Your task to perform on an android device: turn vacation reply on in the gmail app Image 0: 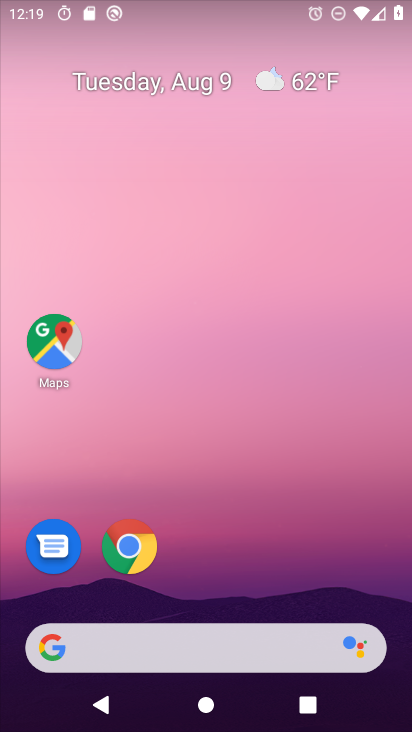
Step 0: press home button
Your task to perform on an android device: turn vacation reply on in the gmail app Image 1: 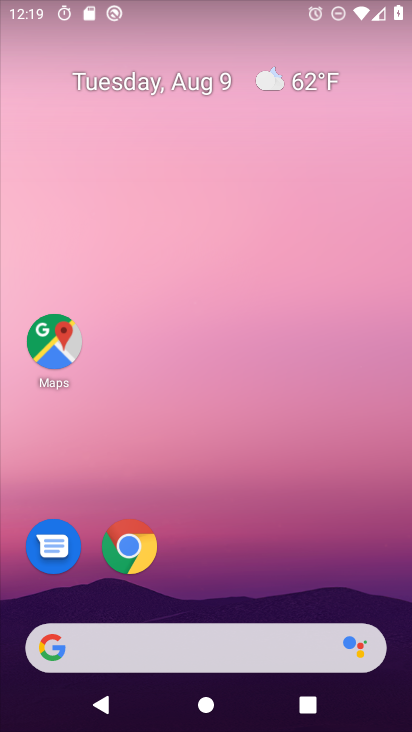
Step 1: drag from (215, 603) to (220, 12)
Your task to perform on an android device: turn vacation reply on in the gmail app Image 2: 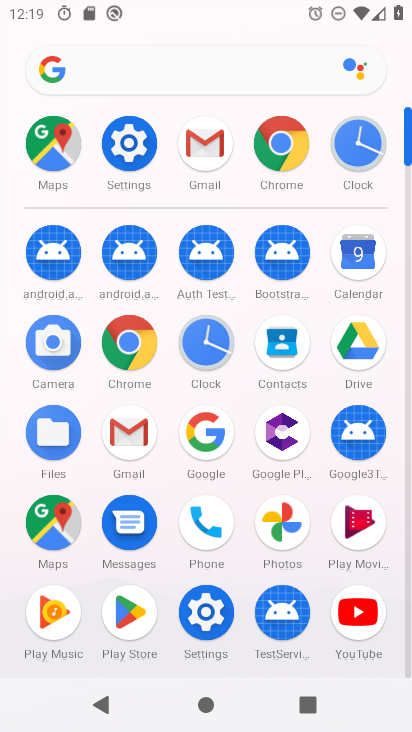
Step 2: click (203, 134)
Your task to perform on an android device: turn vacation reply on in the gmail app Image 3: 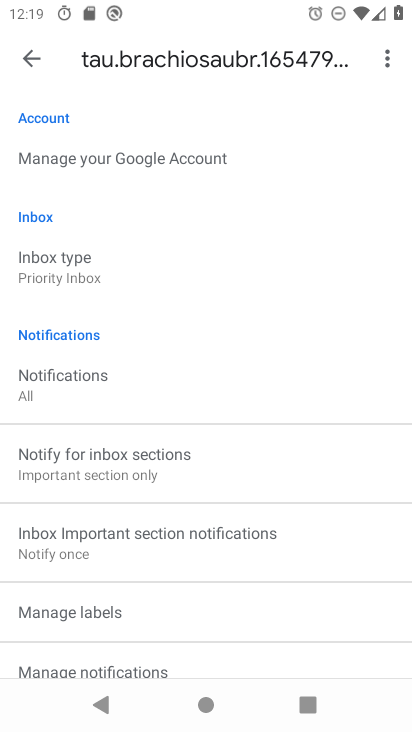
Step 3: drag from (202, 623) to (223, 21)
Your task to perform on an android device: turn vacation reply on in the gmail app Image 4: 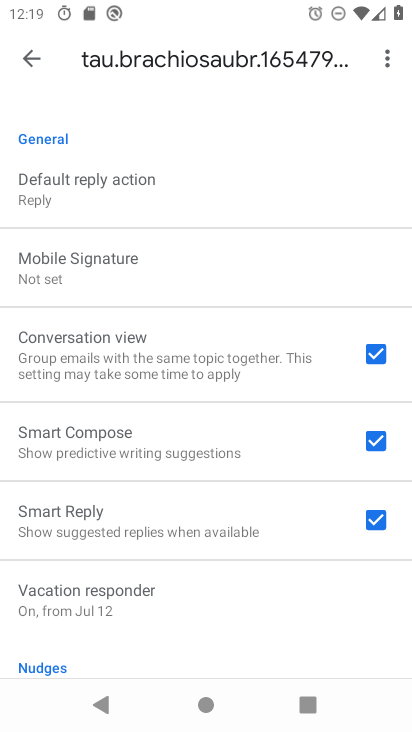
Step 4: click (139, 607)
Your task to perform on an android device: turn vacation reply on in the gmail app Image 5: 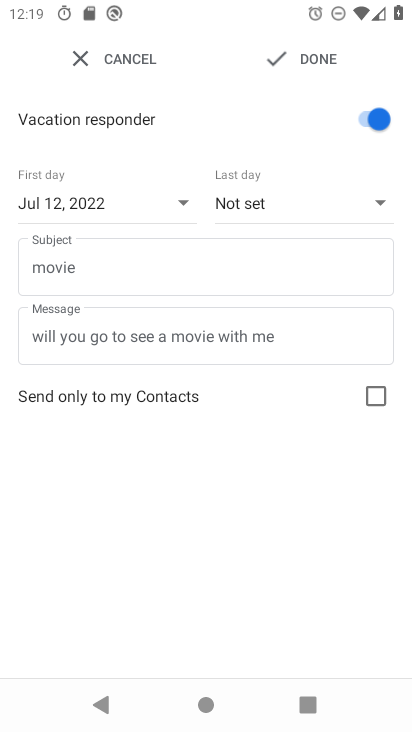
Step 5: click (281, 50)
Your task to perform on an android device: turn vacation reply on in the gmail app Image 6: 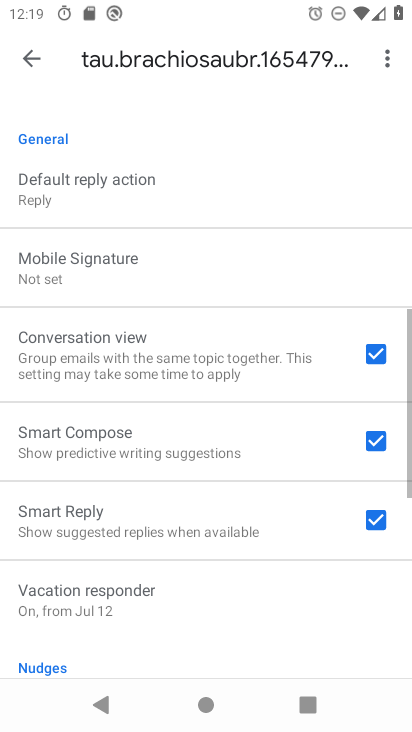
Step 6: task complete